Your task to perform on an android device: change notifications settings Image 0: 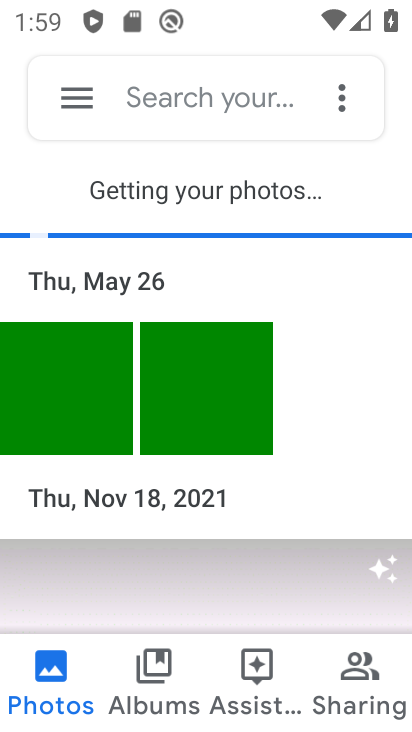
Step 0: press home button
Your task to perform on an android device: change notifications settings Image 1: 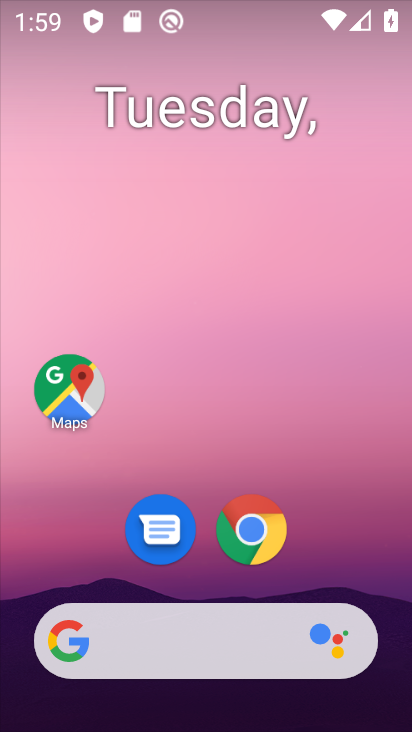
Step 1: drag from (379, 589) to (244, 126)
Your task to perform on an android device: change notifications settings Image 2: 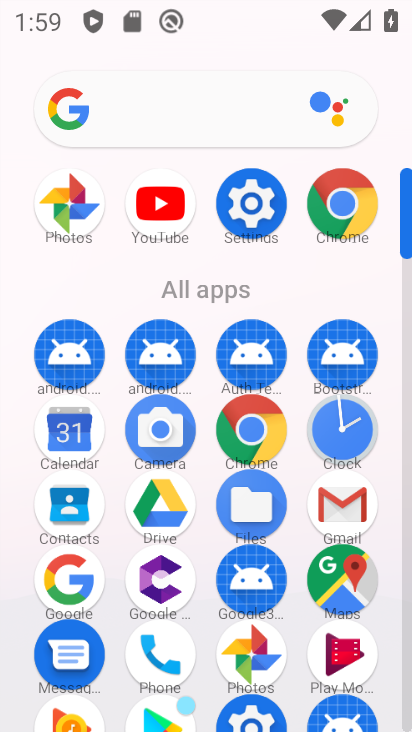
Step 2: click (260, 192)
Your task to perform on an android device: change notifications settings Image 3: 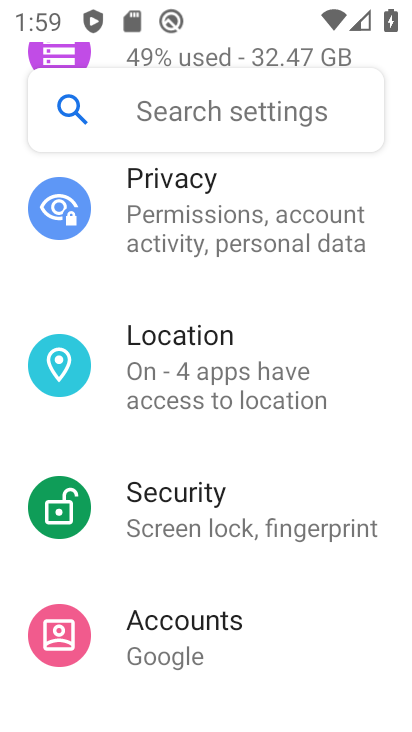
Step 3: drag from (255, 184) to (319, 474)
Your task to perform on an android device: change notifications settings Image 4: 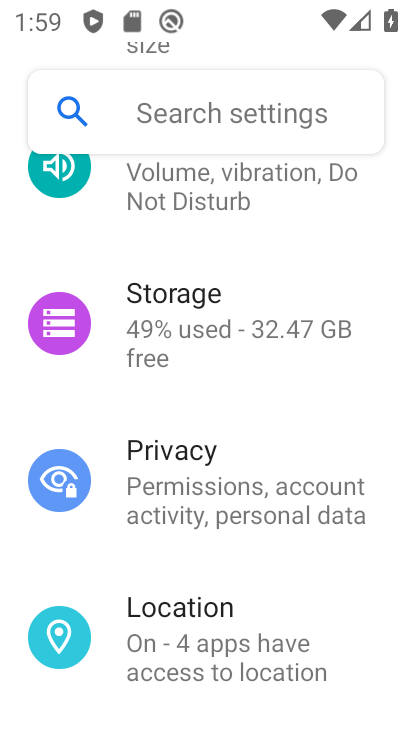
Step 4: drag from (271, 255) to (298, 635)
Your task to perform on an android device: change notifications settings Image 5: 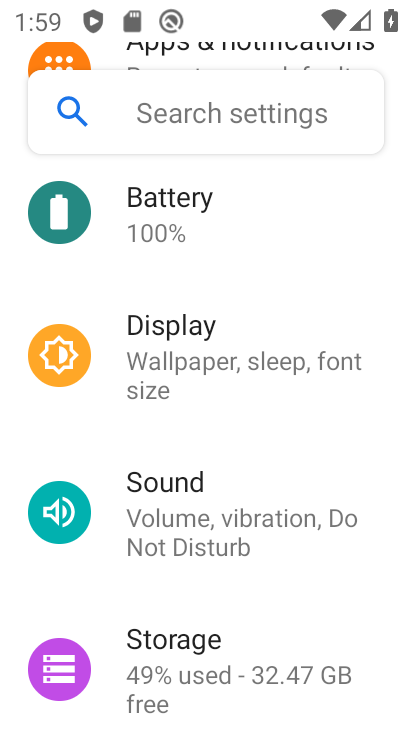
Step 5: drag from (237, 268) to (267, 621)
Your task to perform on an android device: change notifications settings Image 6: 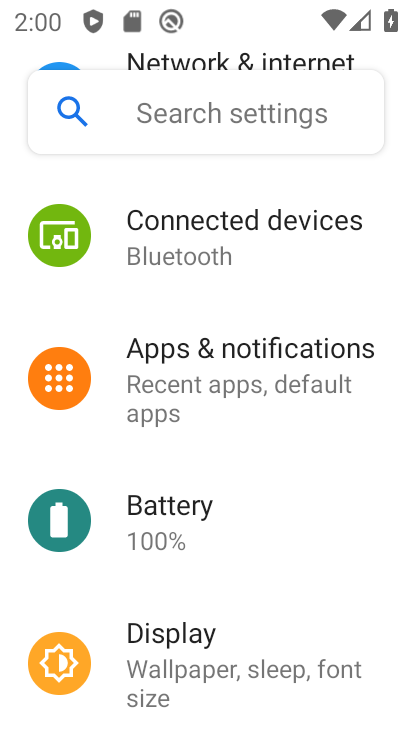
Step 6: click (237, 407)
Your task to perform on an android device: change notifications settings Image 7: 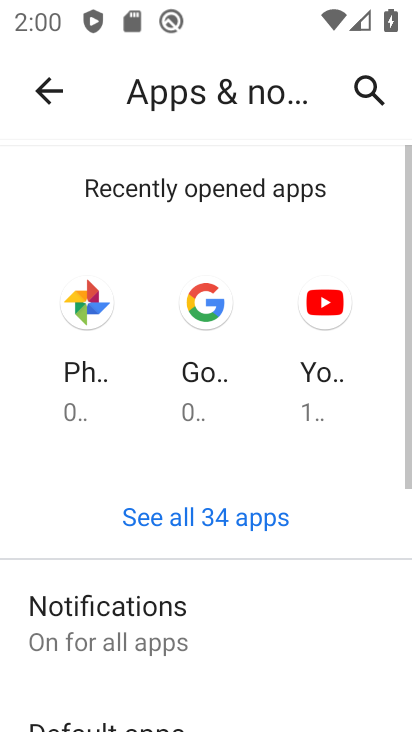
Step 7: click (234, 586)
Your task to perform on an android device: change notifications settings Image 8: 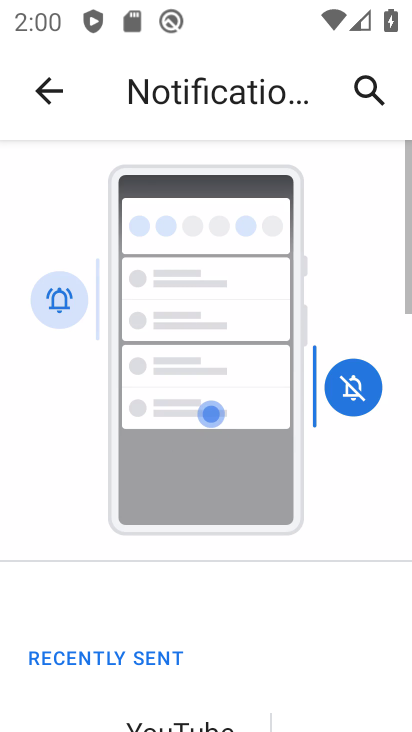
Step 8: task complete